Your task to perform on an android device: toggle notification dots Image 0: 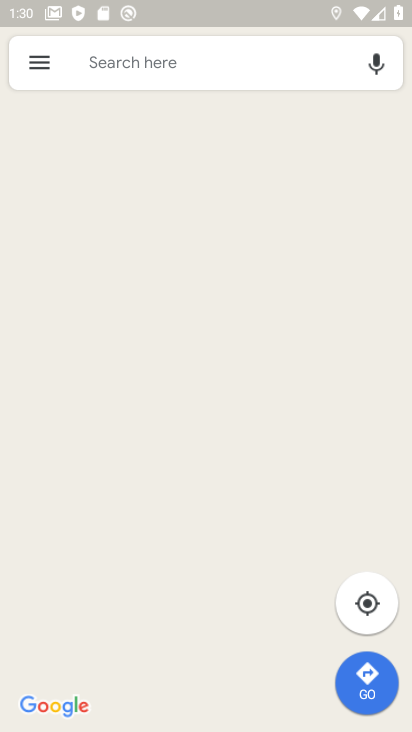
Step 0: press home button
Your task to perform on an android device: toggle notification dots Image 1: 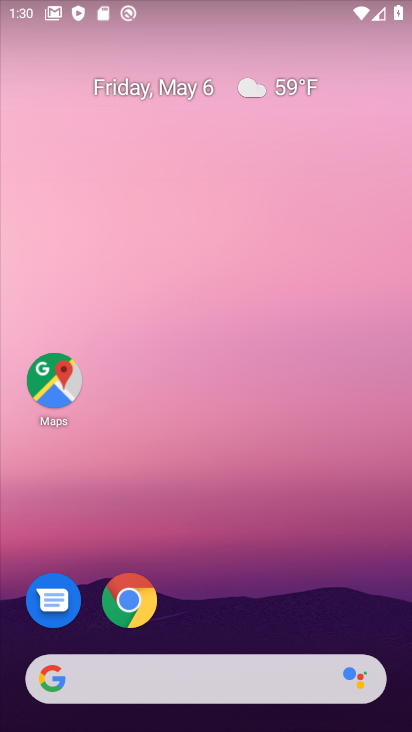
Step 1: drag from (212, 613) to (241, 37)
Your task to perform on an android device: toggle notification dots Image 2: 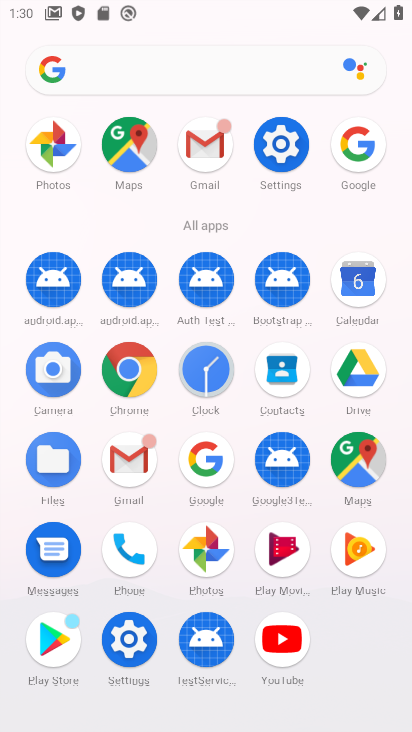
Step 2: click (280, 132)
Your task to perform on an android device: toggle notification dots Image 3: 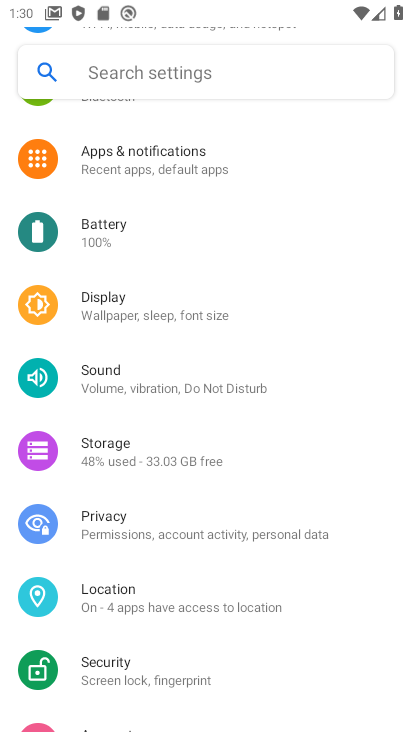
Step 3: click (153, 165)
Your task to perform on an android device: toggle notification dots Image 4: 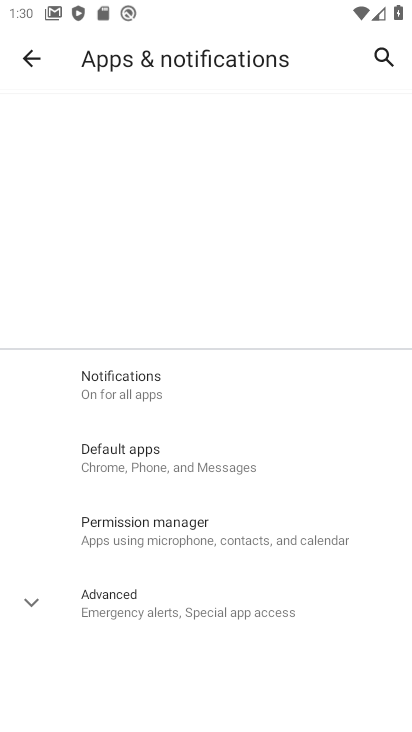
Step 4: click (143, 389)
Your task to perform on an android device: toggle notification dots Image 5: 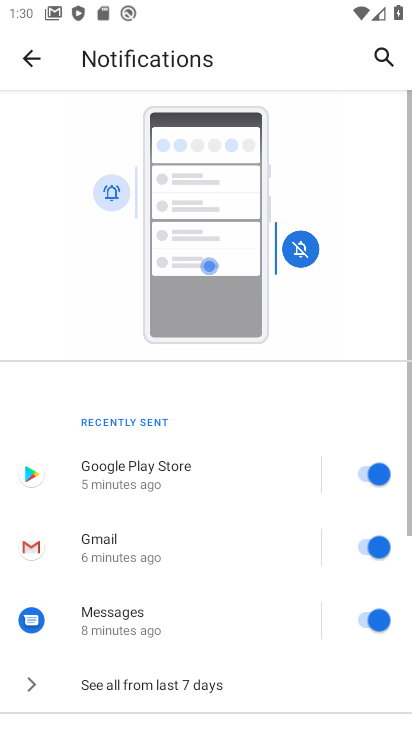
Step 5: drag from (230, 603) to (234, 6)
Your task to perform on an android device: toggle notification dots Image 6: 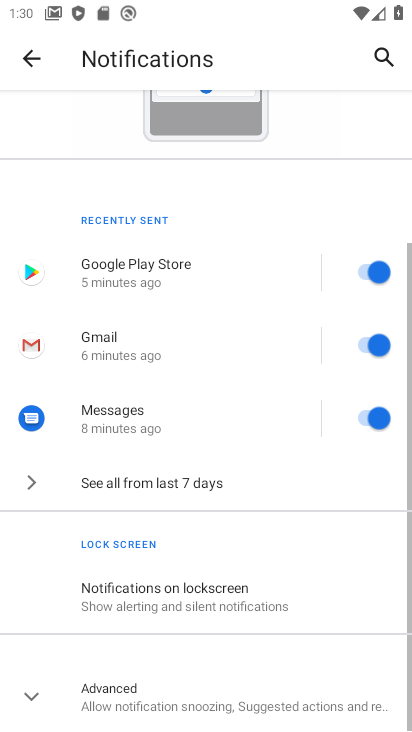
Step 6: click (136, 704)
Your task to perform on an android device: toggle notification dots Image 7: 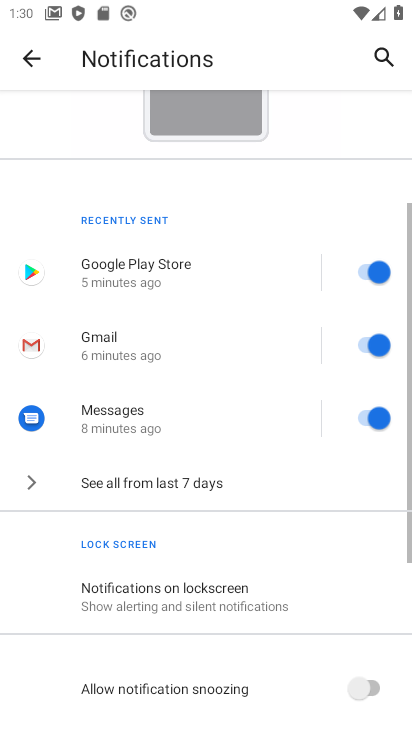
Step 7: drag from (218, 572) to (276, 40)
Your task to perform on an android device: toggle notification dots Image 8: 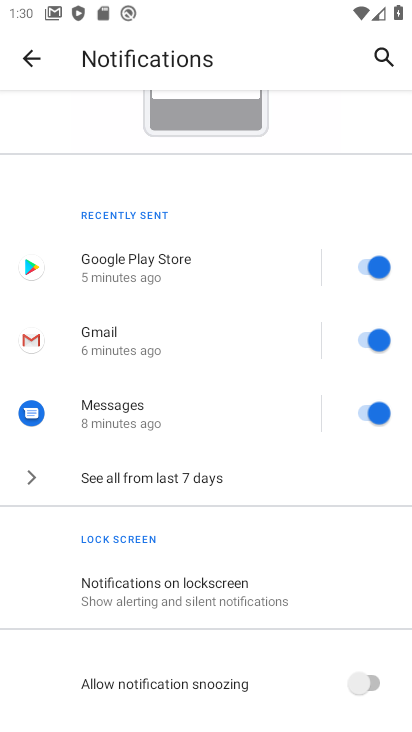
Step 8: drag from (228, 637) to (243, 193)
Your task to perform on an android device: toggle notification dots Image 9: 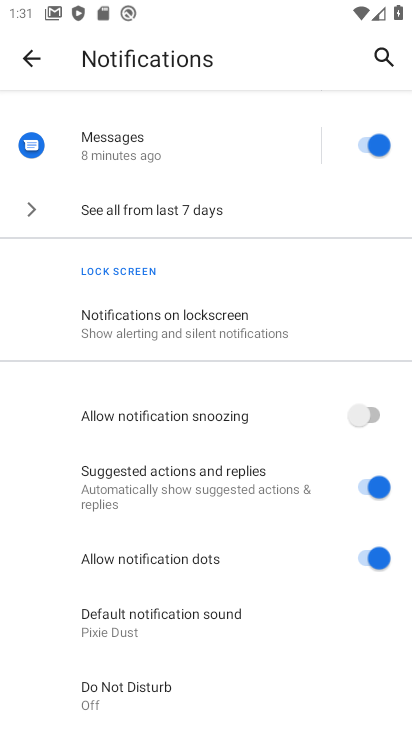
Step 9: click (376, 557)
Your task to perform on an android device: toggle notification dots Image 10: 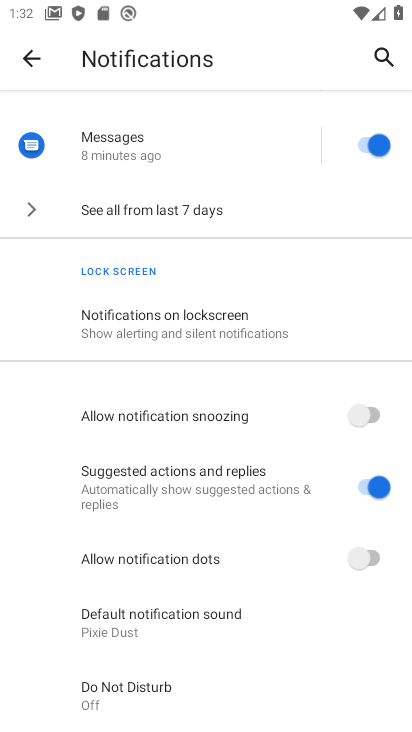
Step 10: task complete